Your task to perform on an android device: clear history in the chrome app Image 0: 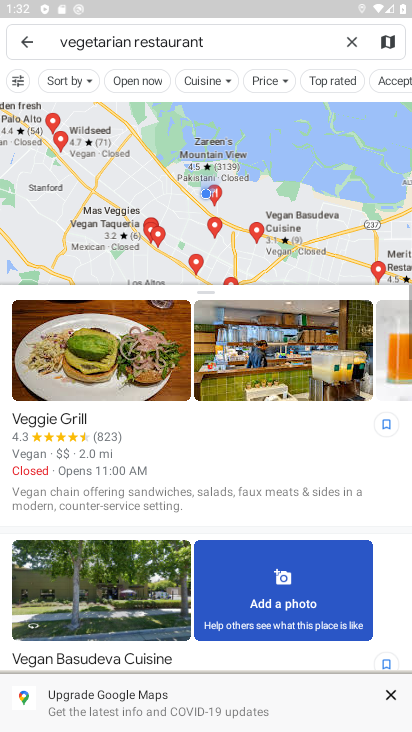
Step 0: press home button
Your task to perform on an android device: clear history in the chrome app Image 1: 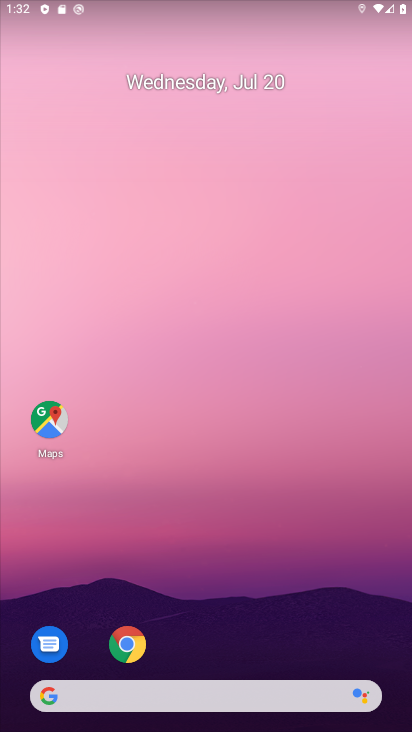
Step 1: click (122, 636)
Your task to perform on an android device: clear history in the chrome app Image 2: 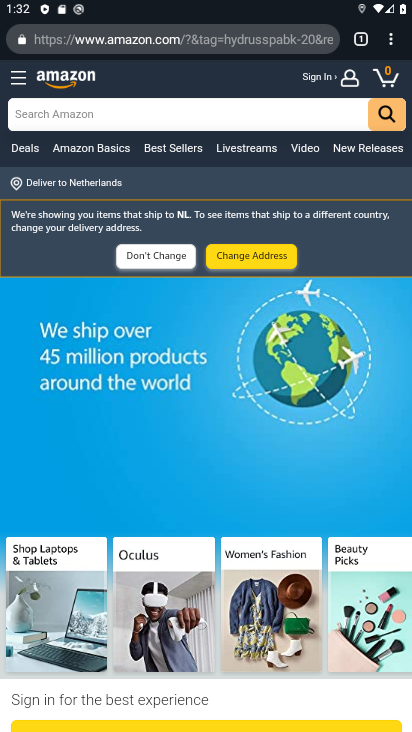
Step 2: click (389, 33)
Your task to perform on an android device: clear history in the chrome app Image 3: 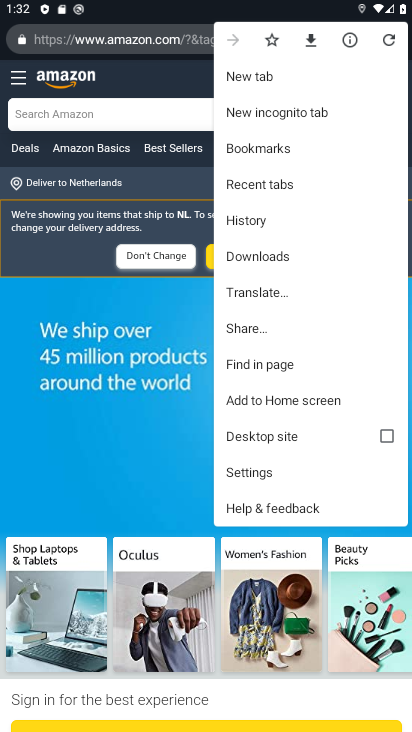
Step 3: click (283, 217)
Your task to perform on an android device: clear history in the chrome app Image 4: 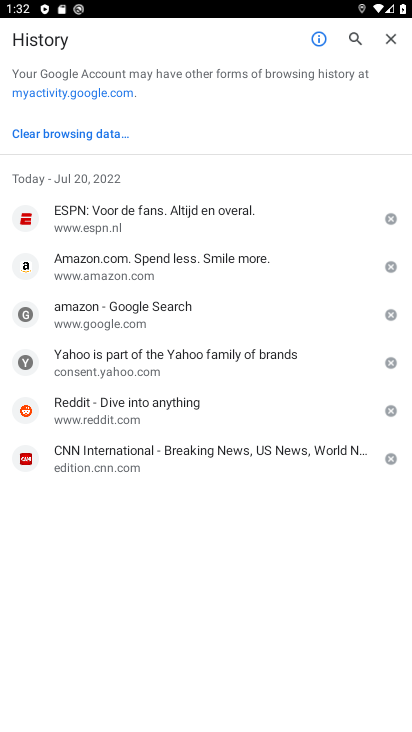
Step 4: click (26, 136)
Your task to perform on an android device: clear history in the chrome app Image 5: 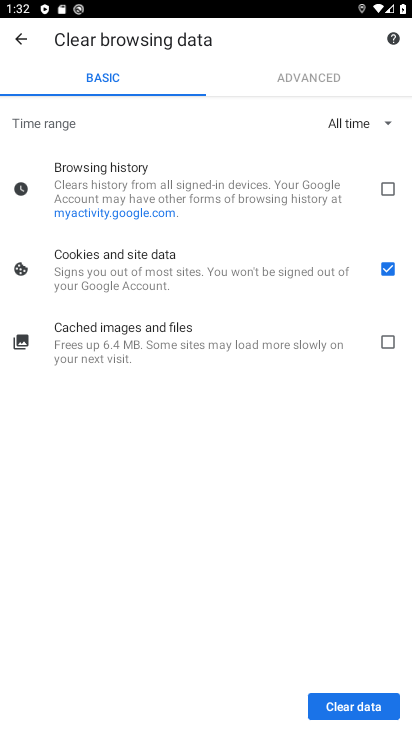
Step 5: click (355, 704)
Your task to perform on an android device: clear history in the chrome app Image 6: 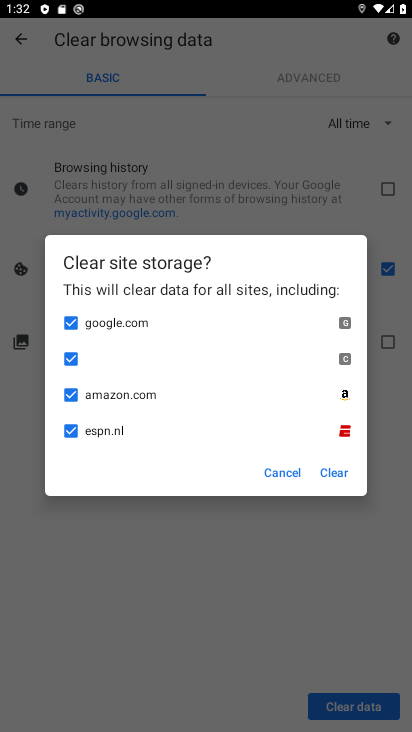
Step 6: click (338, 474)
Your task to perform on an android device: clear history in the chrome app Image 7: 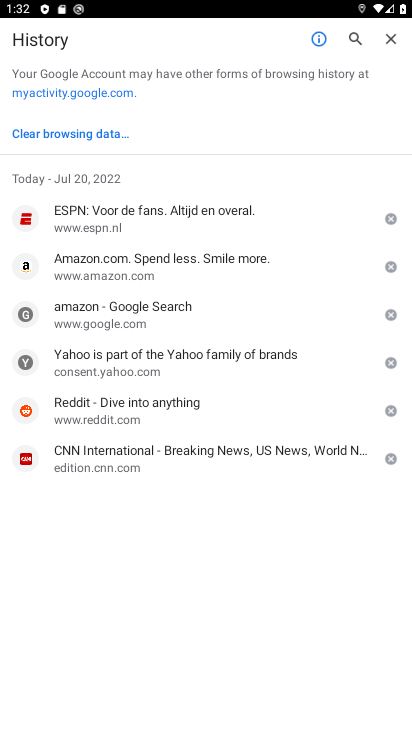
Step 7: task complete